Your task to perform on an android device: change your default location settings in chrome Image 0: 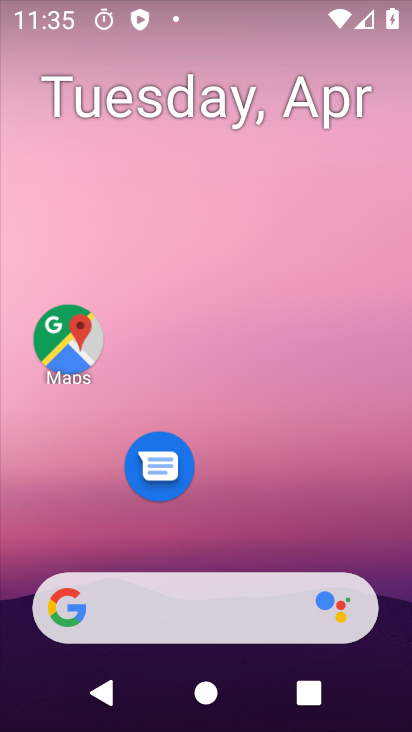
Step 0: drag from (323, 474) to (325, 204)
Your task to perform on an android device: change your default location settings in chrome Image 1: 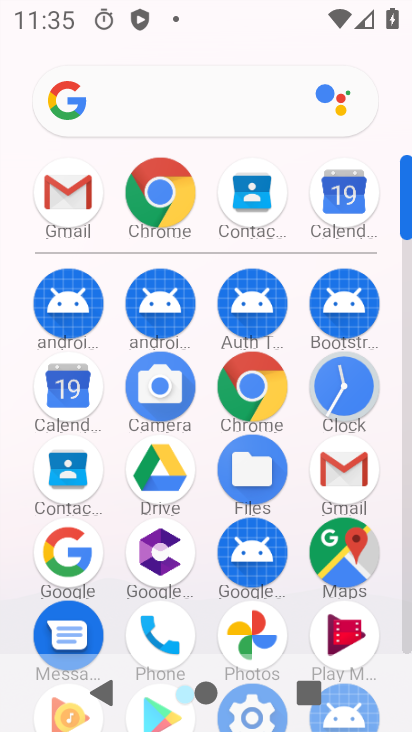
Step 1: click (171, 219)
Your task to perform on an android device: change your default location settings in chrome Image 2: 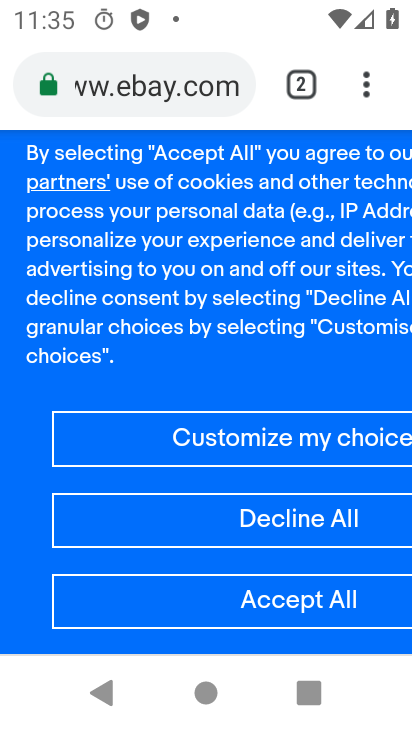
Step 2: click (365, 94)
Your task to perform on an android device: change your default location settings in chrome Image 3: 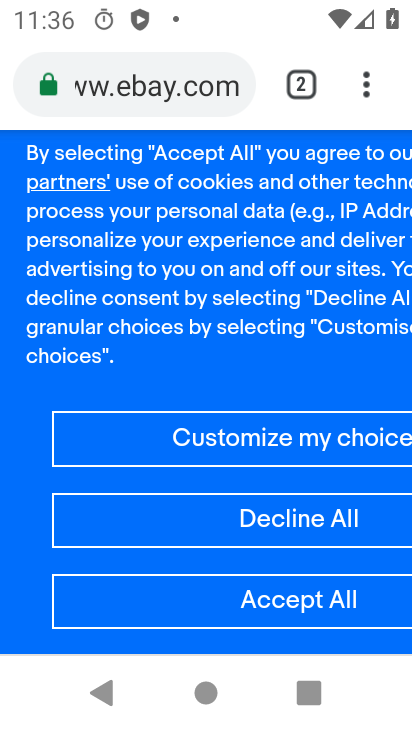
Step 3: click (370, 80)
Your task to perform on an android device: change your default location settings in chrome Image 4: 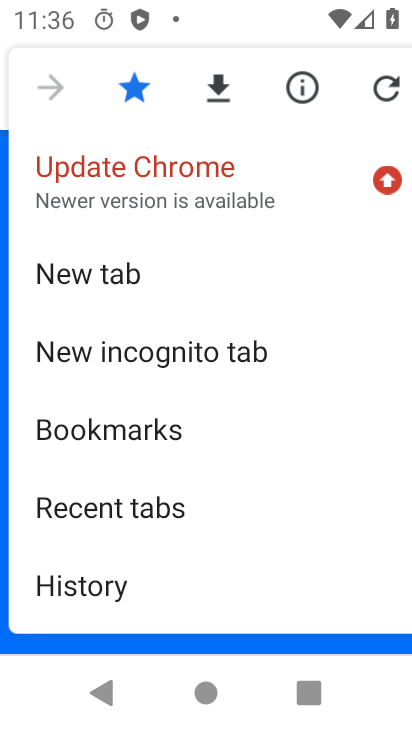
Step 4: drag from (240, 535) to (232, 279)
Your task to perform on an android device: change your default location settings in chrome Image 5: 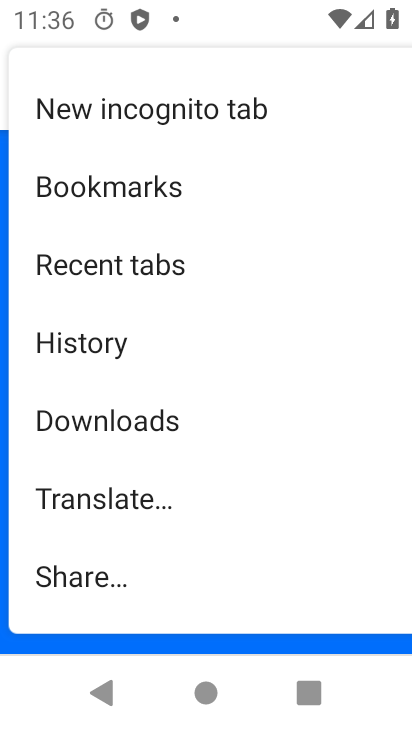
Step 5: drag from (190, 546) to (205, 299)
Your task to perform on an android device: change your default location settings in chrome Image 6: 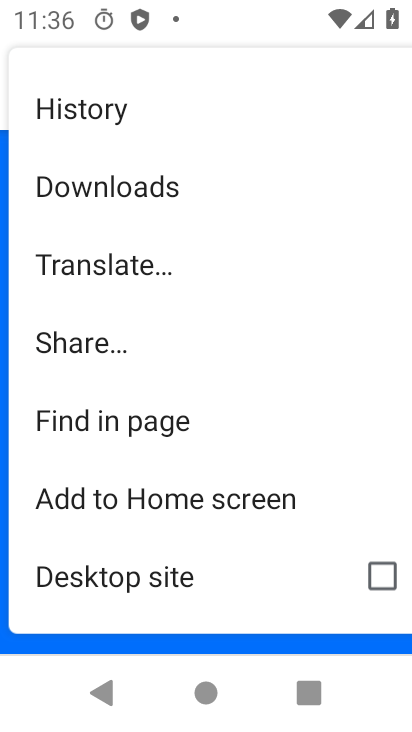
Step 6: drag from (161, 574) to (156, 262)
Your task to perform on an android device: change your default location settings in chrome Image 7: 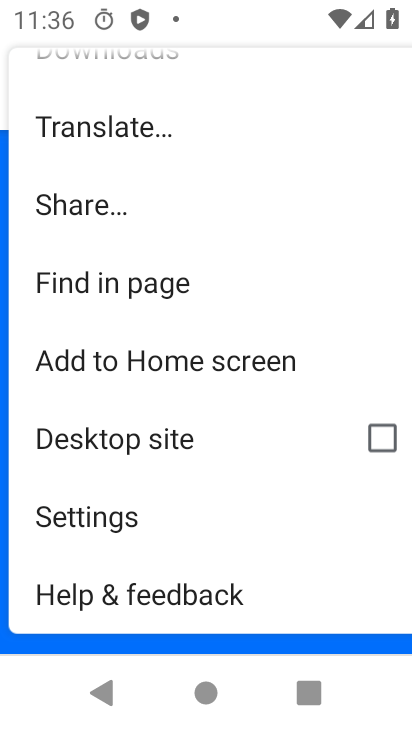
Step 7: click (136, 499)
Your task to perform on an android device: change your default location settings in chrome Image 8: 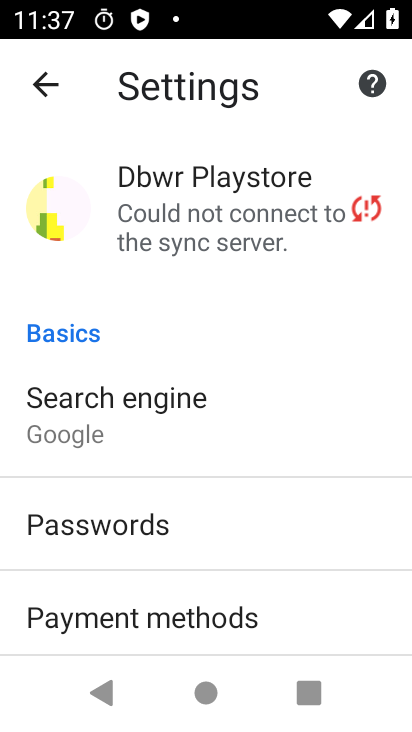
Step 8: drag from (191, 565) to (252, 339)
Your task to perform on an android device: change your default location settings in chrome Image 9: 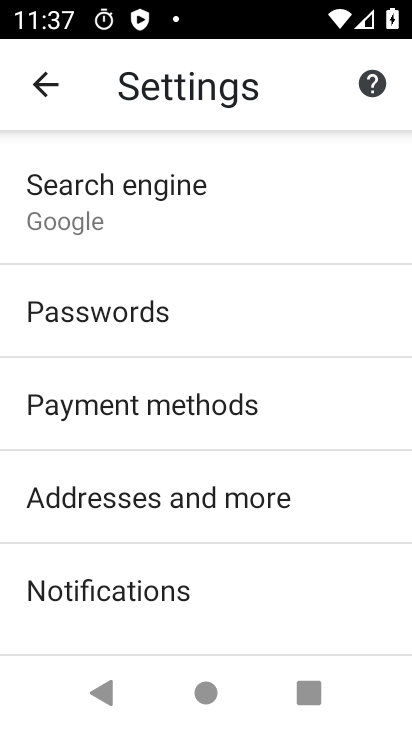
Step 9: click (202, 494)
Your task to perform on an android device: change your default location settings in chrome Image 10: 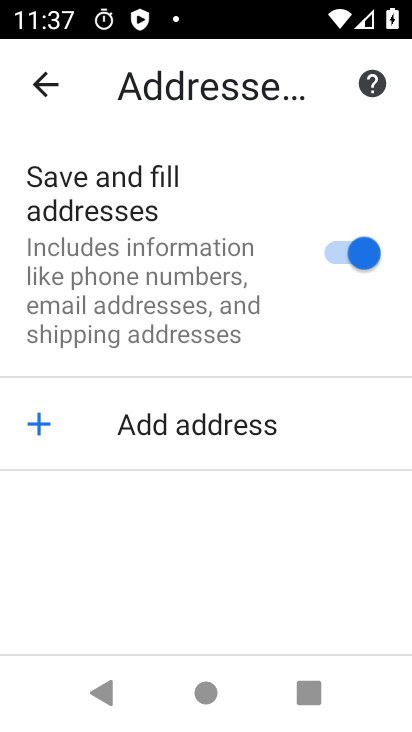
Step 10: task complete